Your task to perform on an android device: open chrome and create a bookmark for the current page Image 0: 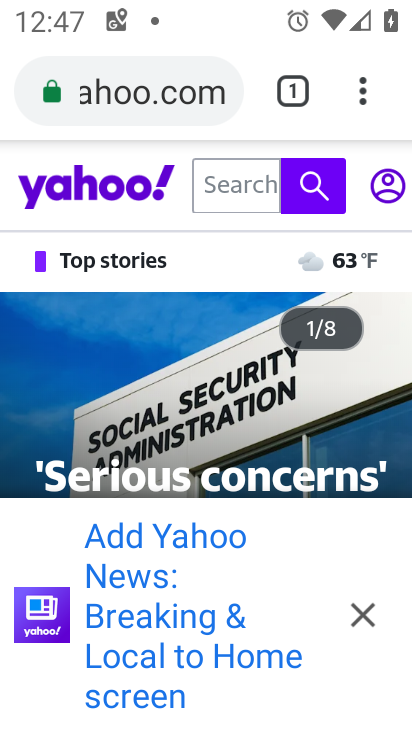
Step 0: press home button
Your task to perform on an android device: open chrome and create a bookmark for the current page Image 1: 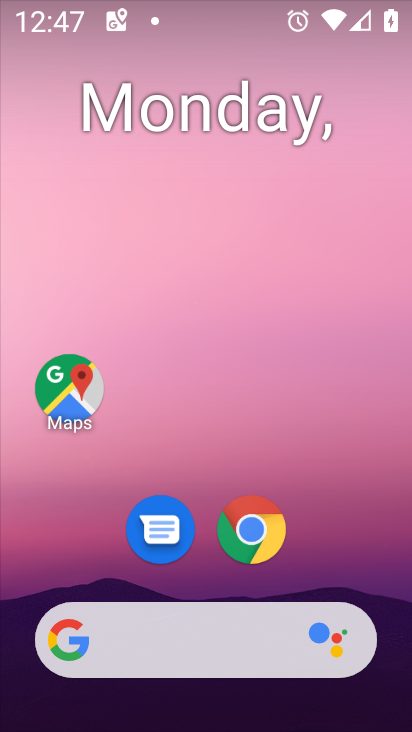
Step 1: click (257, 555)
Your task to perform on an android device: open chrome and create a bookmark for the current page Image 2: 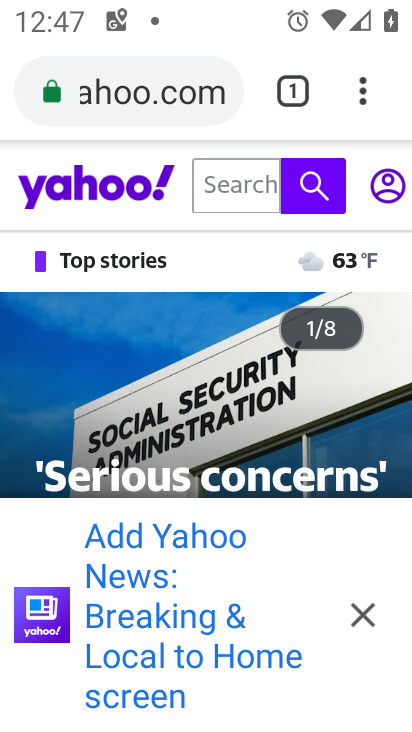
Step 2: task complete